Your task to perform on an android device: move a message to another label in the gmail app Image 0: 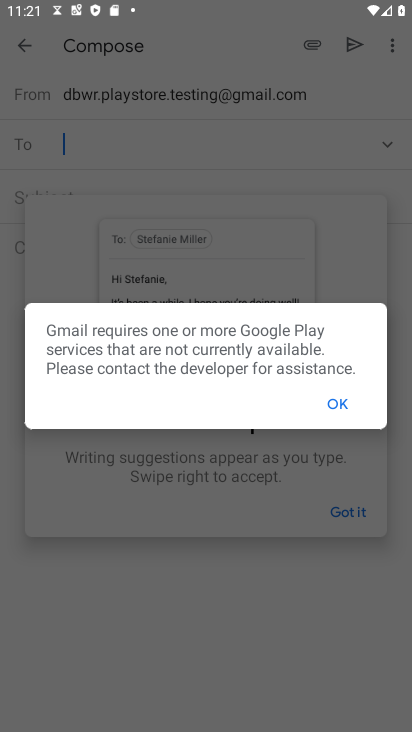
Step 0: press home button
Your task to perform on an android device: move a message to another label in the gmail app Image 1: 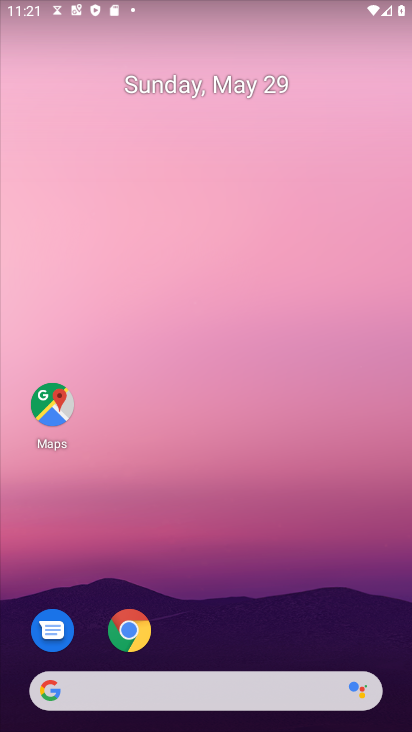
Step 1: drag from (194, 618) to (257, 146)
Your task to perform on an android device: move a message to another label in the gmail app Image 2: 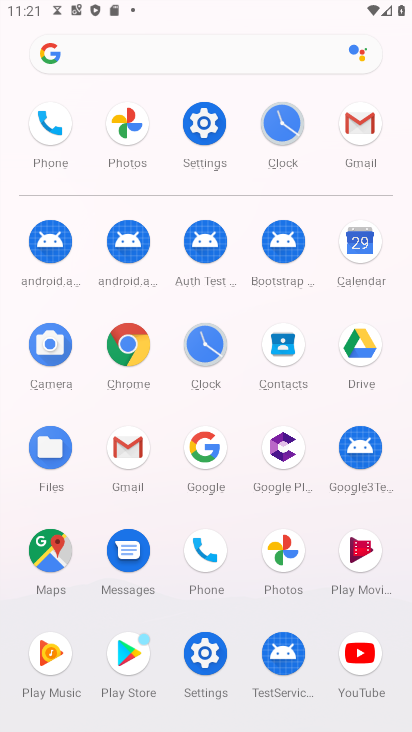
Step 2: click (358, 126)
Your task to perform on an android device: move a message to another label in the gmail app Image 3: 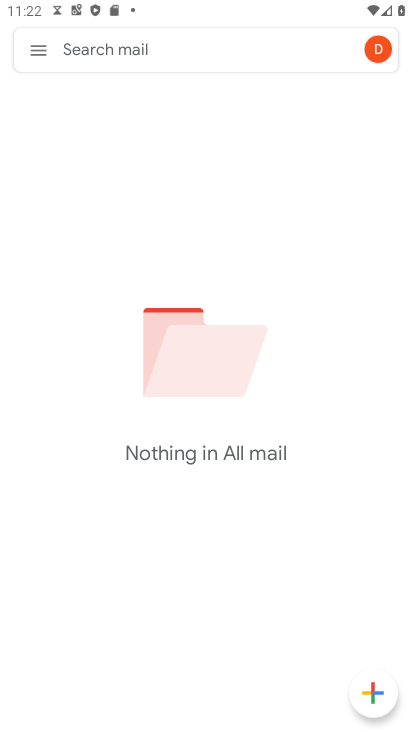
Step 3: click (32, 36)
Your task to perform on an android device: move a message to another label in the gmail app Image 4: 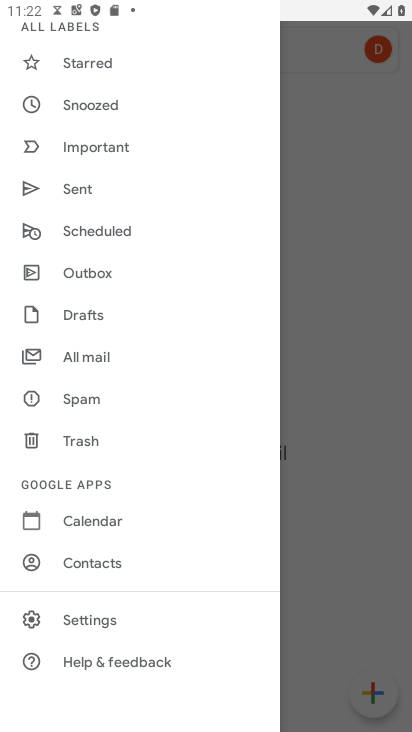
Step 4: drag from (124, 104) to (186, 547)
Your task to perform on an android device: move a message to another label in the gmail app Image 5: 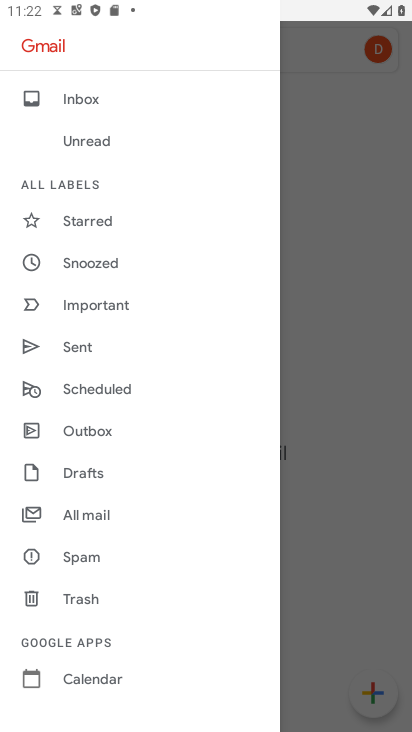
Step 5: drag from (151, 466) to (158, 152)
Your task to perform on an android device: move a message to another label in the gmail app Image 6: 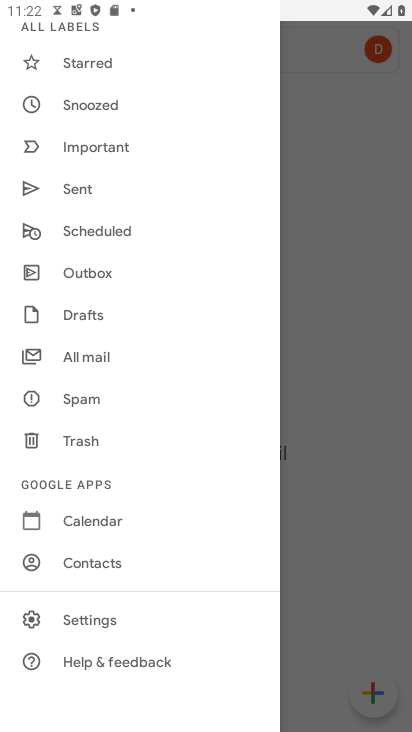
Step 6: click (77, 354)
Your task to perform on an android device: move a message to another label in the gmail app Image 7: 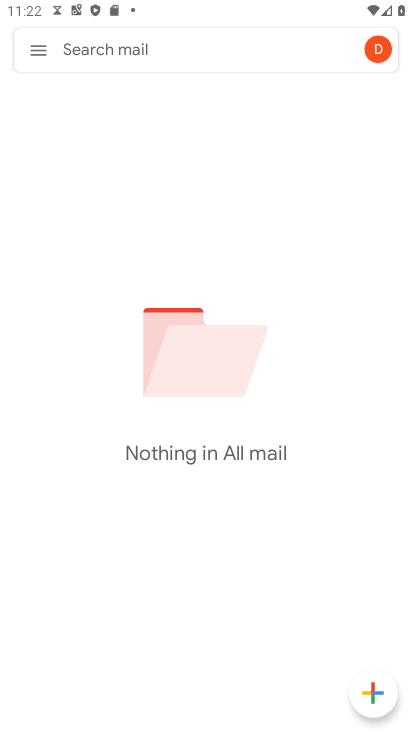
Step 7: task complete